Your task to perform on an android device: allow cookies in the chrome app Image 0: 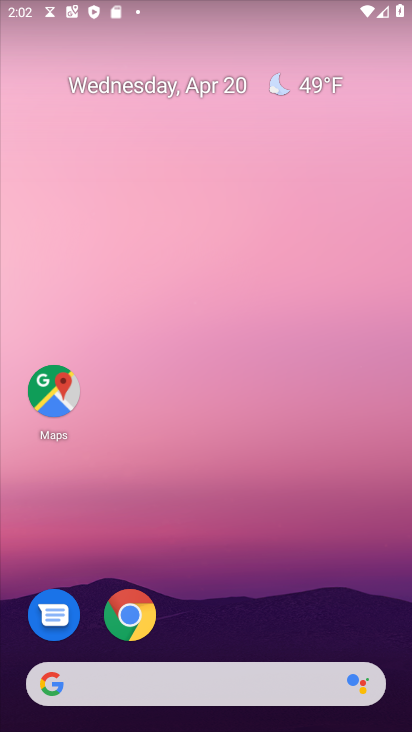
Step 0: click (139, 614)
Your task to perform on an android device: allow cookies in the chrome app Image 1: 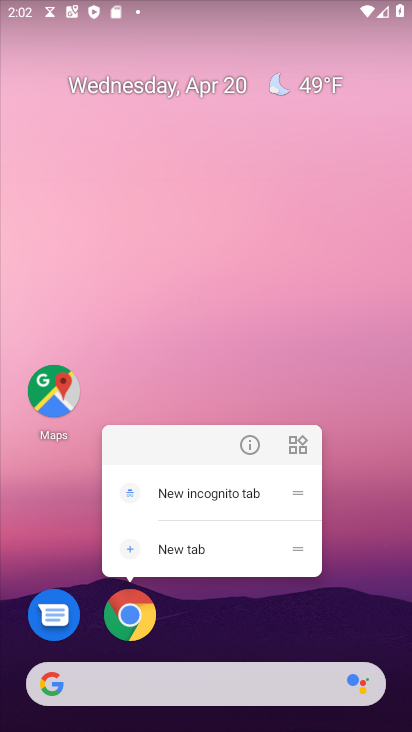
Step 1: click (139, 618)
Your task to perform on an android device: allow cookies in the chrome app Image 2: 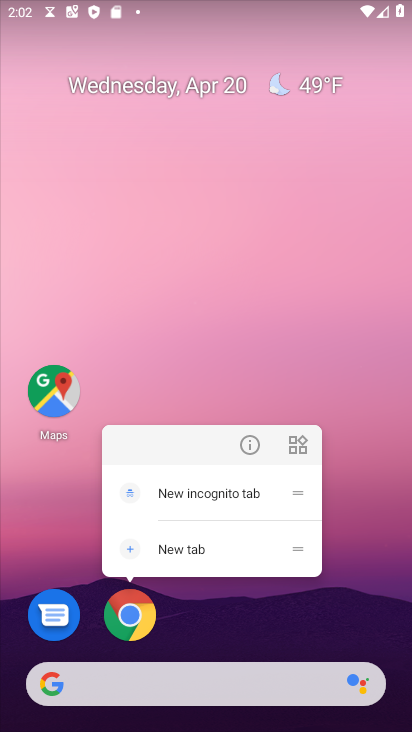
Step 2: click (123, 611)
Your task to perform on an android device: allow cookies in the chrome app Image 3: 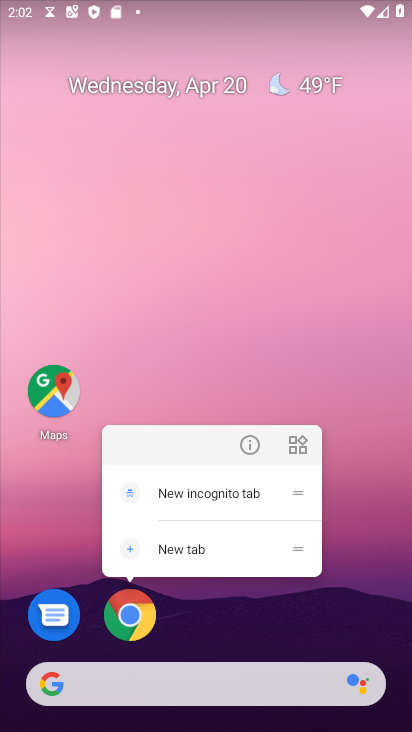
Step 3: click (127, 613)
Your task to perform on an android device: allow cookies in the chrome app Image 4: 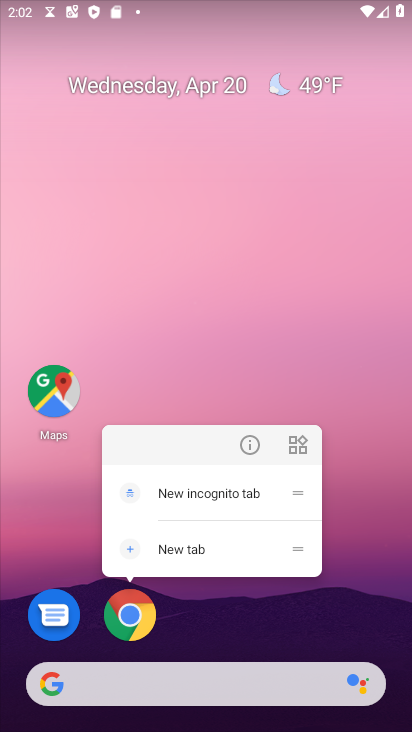
Step 4: click (128, 612)
Your task to perform on an android device: allow cookies in the chrome app Image 5: 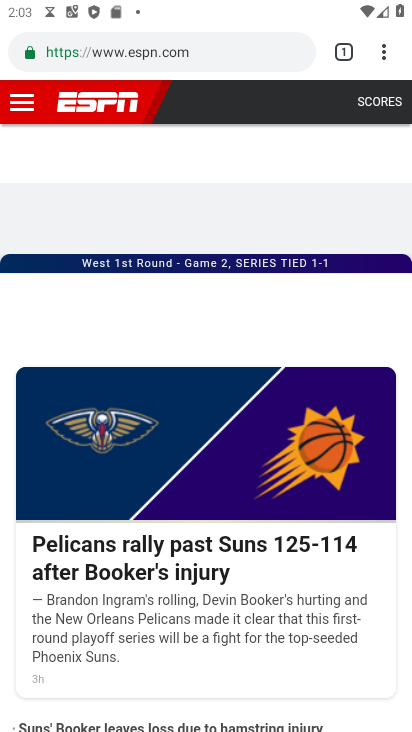
Step 5: click (385, 53)
Your task to perform on an android device: allow cookies in the chrome app Image 6: 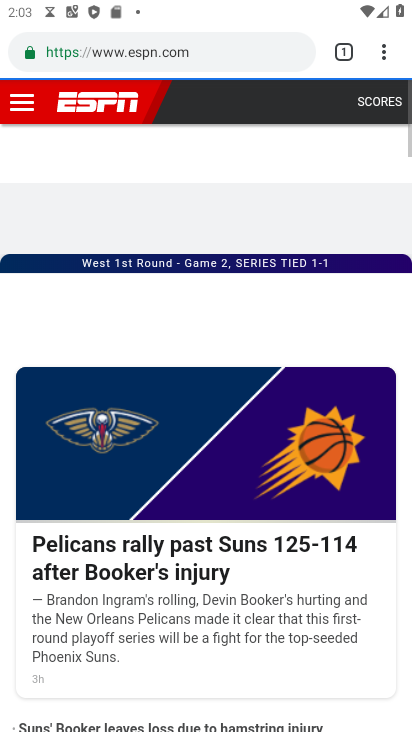
Step 6: click (385, 53)
Your task to perform on an android device: allow cookies in the chrome app Image 7: 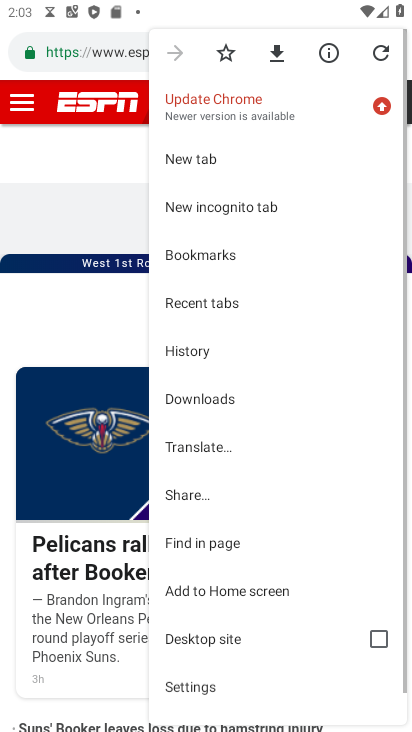
Step 7: click (385, 53)
Your task to perform on an android device: allow cookies in the chrome app Image 8: 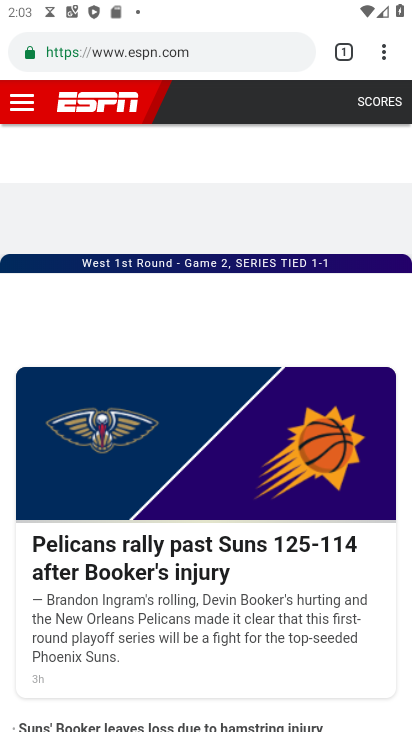
Step 8: click (380, 56)
Your task to perform on an android device: allow cookies in the chrome app Image 9: 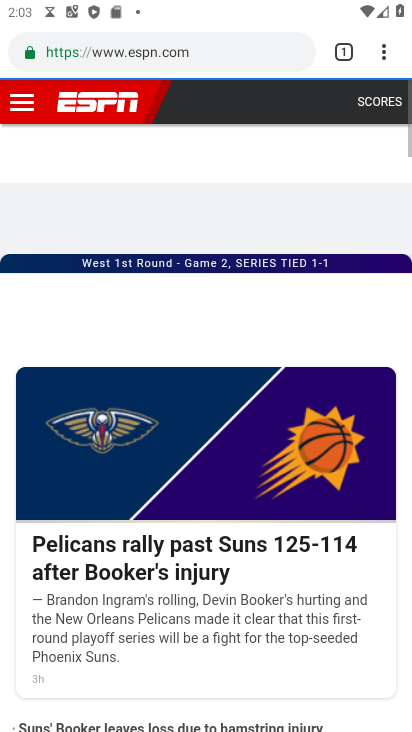
Step 9: click (380, 56)
Your task to perform on an android device: allow cookies in the chrome app Image 10: 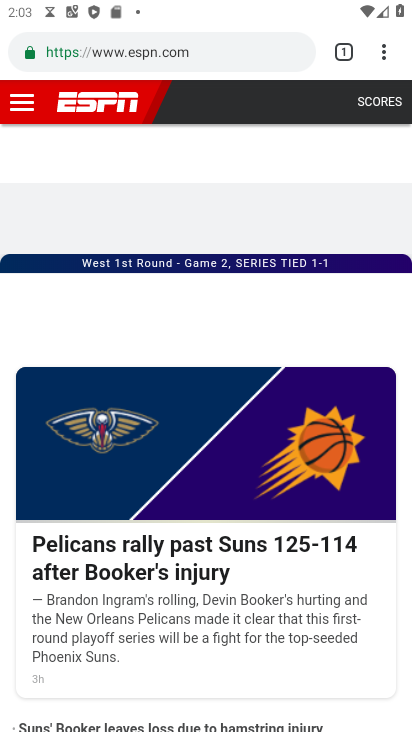
Step 10: click (380, 56)
Your task to perform on an android device: allow cookies in the chrome app Image 11: 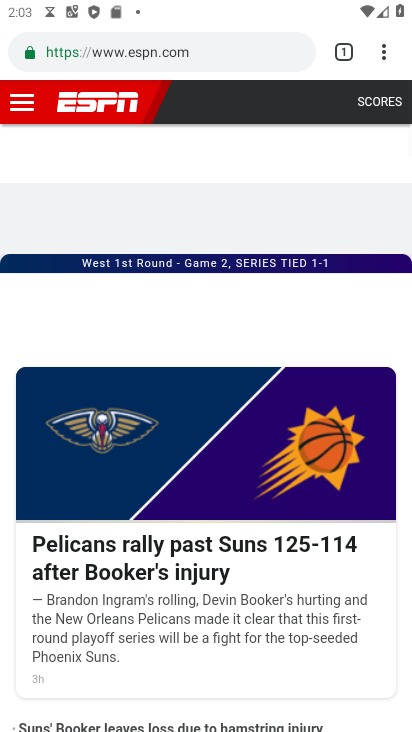
Step 11: click (381, 56)
Your task to perform on an android device: allow cookies in the chrome app Image 12: 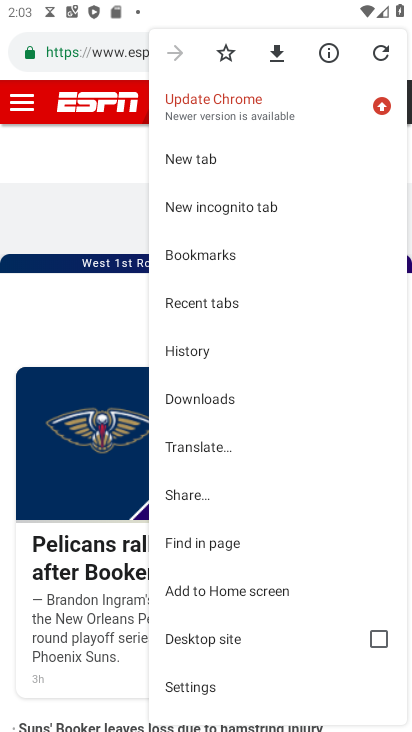
Step 12: click (195, 687)
Your task to perform on an android device: allow cookies in the chrome app Image 13: 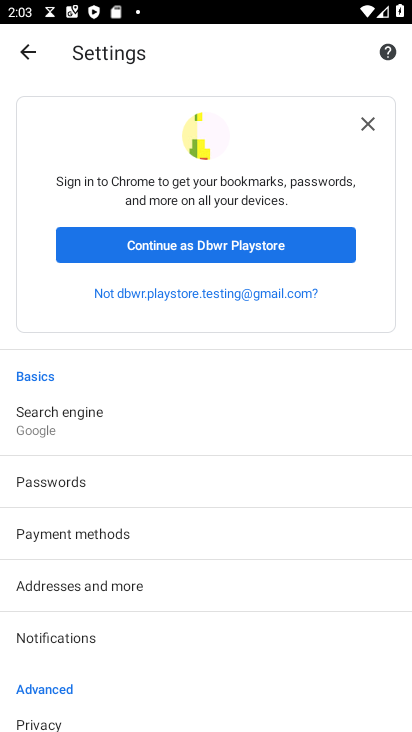
Step 13: drag from (100, 645) to (157, 297)
Your task to perform on an android device: allow cookies in the chrome app Image 14: 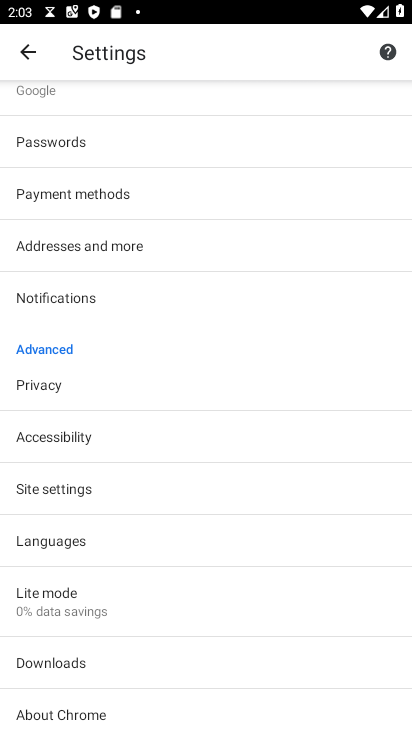
Step 14: click (90, 380)
Your task to perform on an android device: allow cookies in the chrome app Image 15: 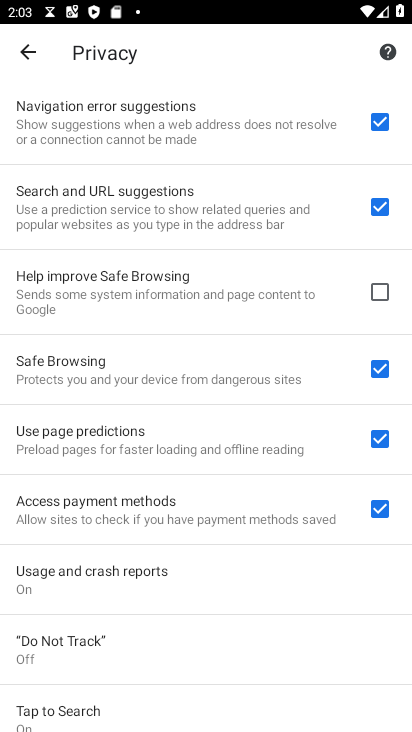
Step 15: drag from (109, 694) to (238, 208)
Your task to perform on an android device: allow cookies in the chrome app Image 16: 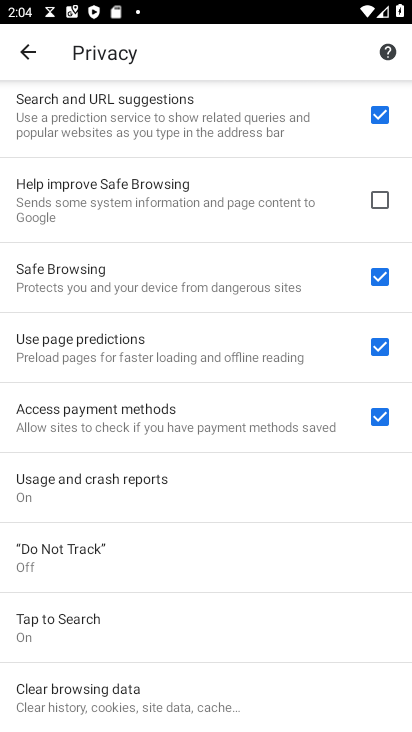
Step 16: press back button
Your task to perform on an android device: allow cookies in the chrome app Image 17: 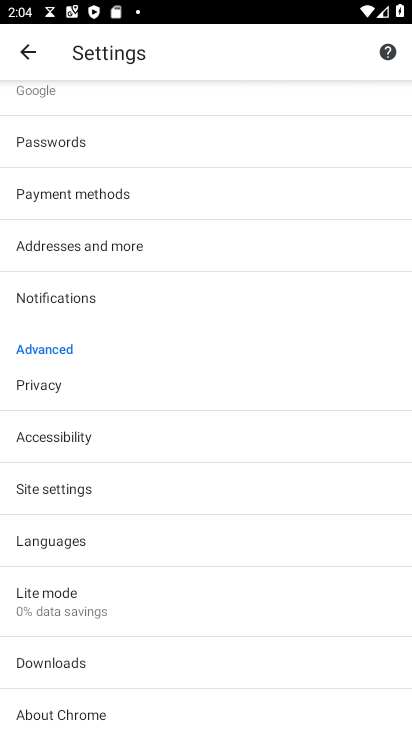
Step 17: click (210, 485)
Your task to perform on an android device: allow cookies in the chrome app Image 18: 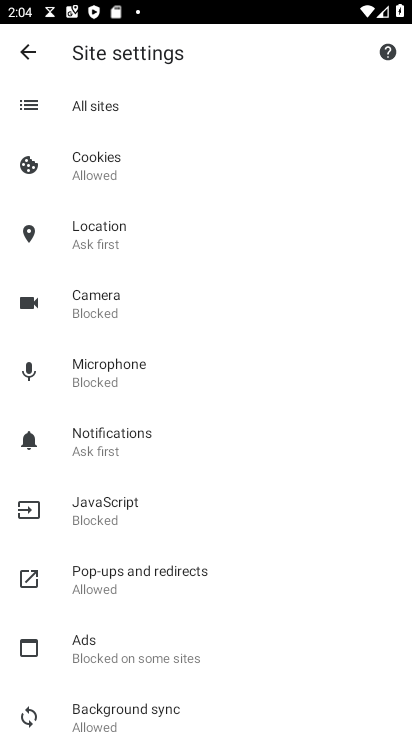
Step 18: click (172, 159)
Your task to perform on an android device: allow cookies in the chrome app Image 19: 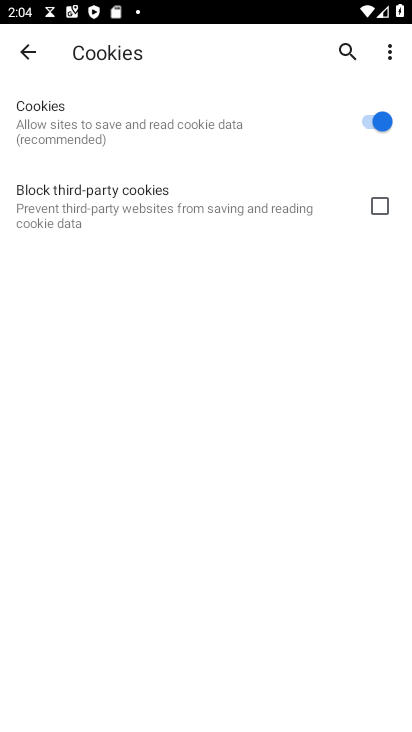
Step 19: task complete